Your task to perform on an android device: uninstall "McDonald's" Image 0: 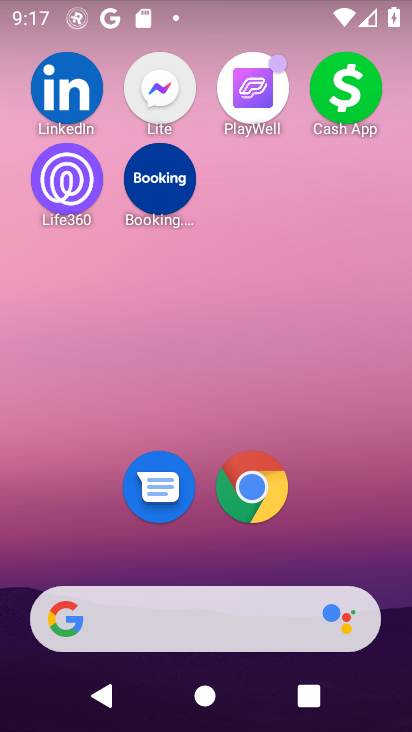
Step 0: drag from (299, 608) to (240, 248)
Your task to perform on an android device: uninstall "McDonald's" Image 1: 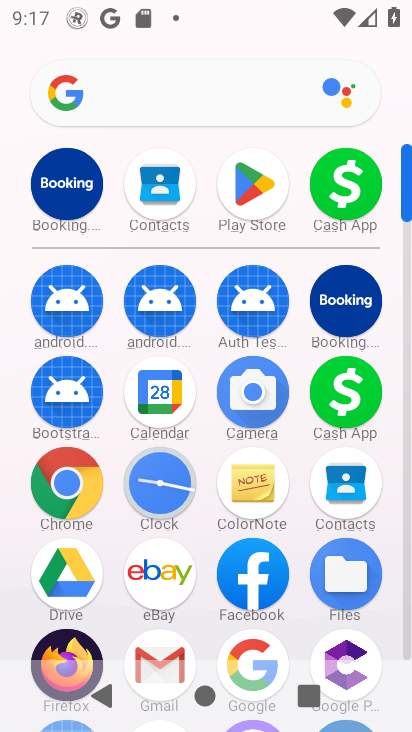
Step 1: drag from (257, 478) to (246, 142)
Your task to perform on an android device: uninstall "McDonald's" Image 2: 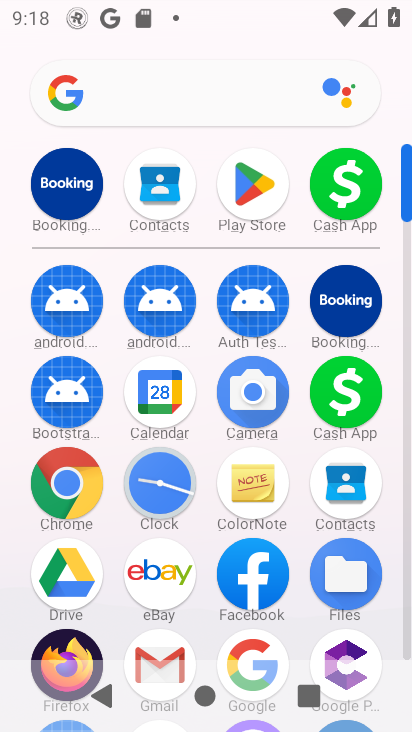
Step 2: click (237, 199)
Your task to perform on an android device: uninstall "McDonald's" Image 3: 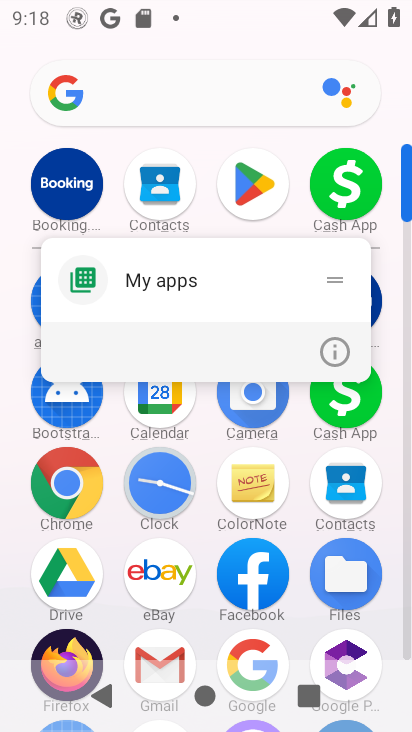
Step 3: click (242, 186)
Your task to perform on an android device: uninstall "McDonald's" Image 4: 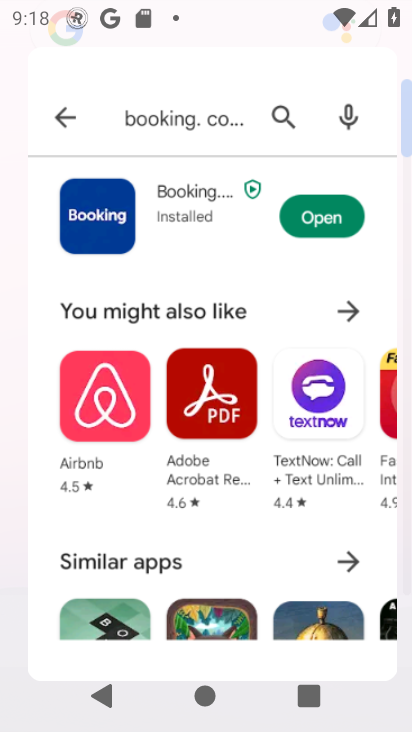
Step 4: click (242, 187)
Your task to perform on an android device: uninstall "McDonald's" Image 5: 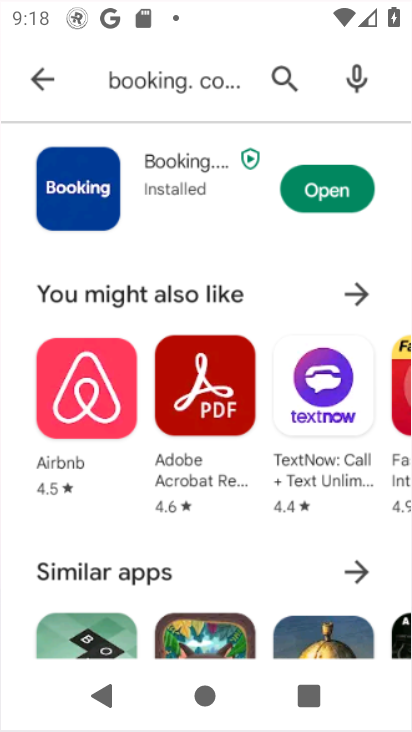
Step 5: click (242, 187)
Your task to perform on an android device: uninstall "McDonald's" Image 6: 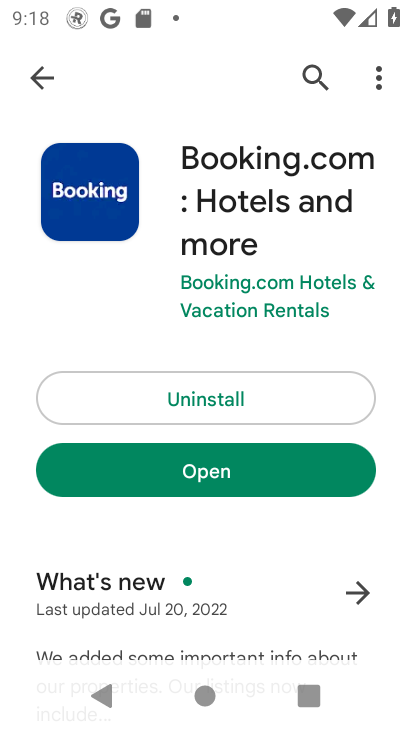
Step 6: click (43, 82)
Your task to perform on an android device: uninstall "McDonald's" Image 7: 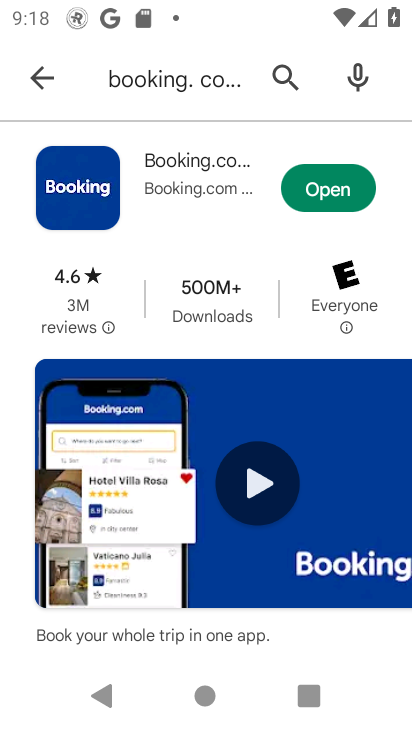
Step 7: click (135, 78)
Your task to perform on an android device: uninstall "McDonald's" Image 8: 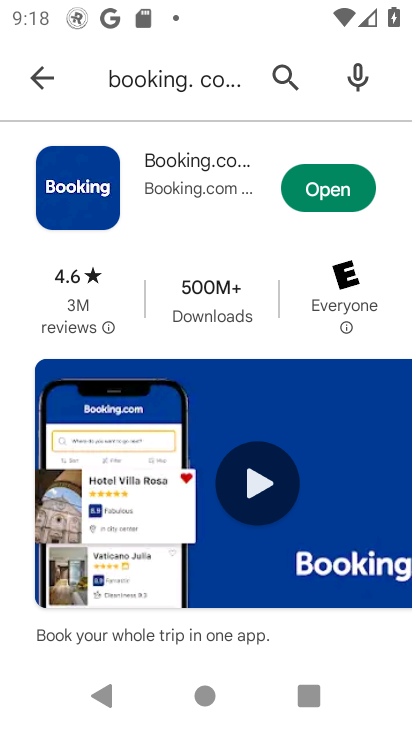
Step 8: click (135, 78)
Your task to perform on an android device: uninstall "McDonald's" Image 9: 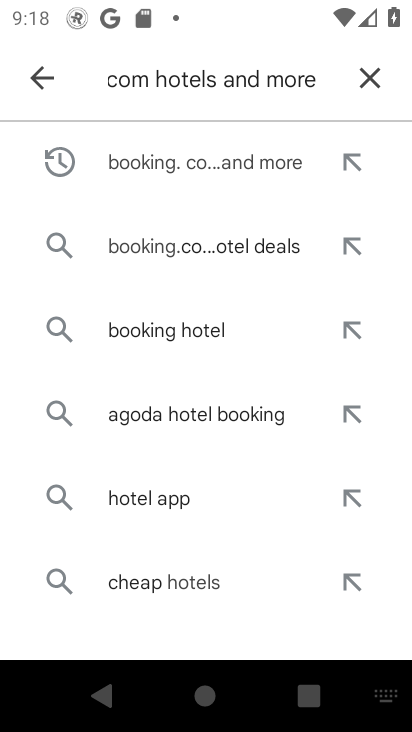
Step 9: click (365, 75)
Your task to perform on an android device: uninstall "McDonald's" Image 10: 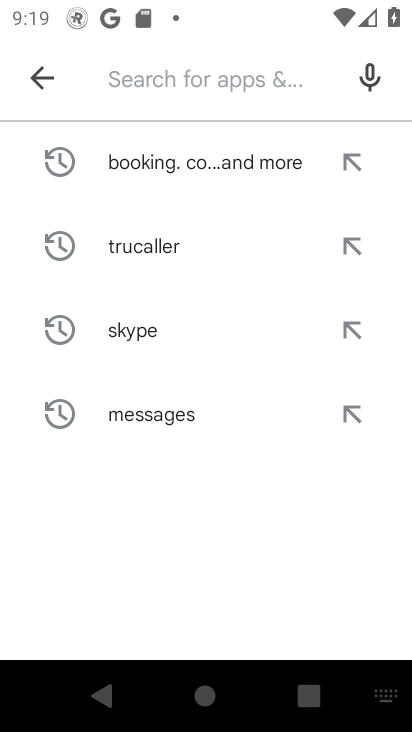
Step 10: type "McDonlad's"
Your task to perform on an android device: uninstall "McDonald's" Image 11: 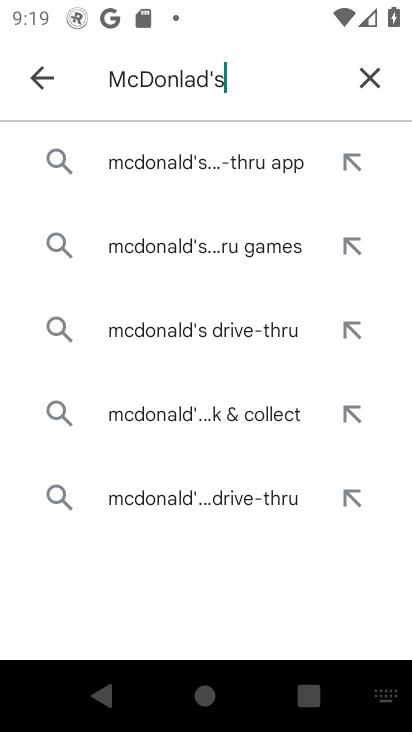
Step 11: click (168, 164)
Your task to perform on an android device: uninstall "McDonald's" Image 12: 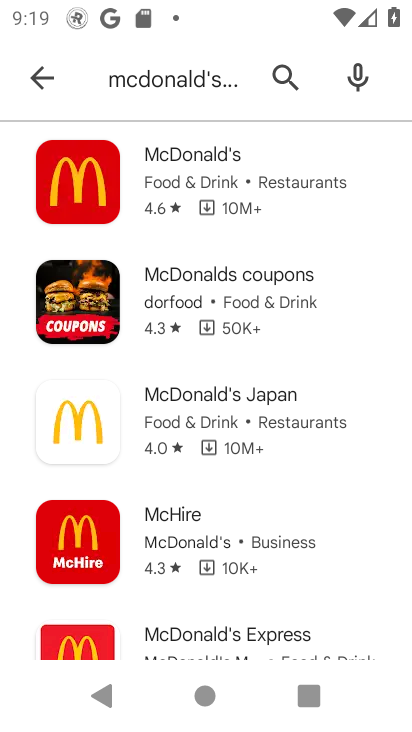
Step 12: click (182, 175)
Your task to perform on an android device: uninstall "McDonald's" Image 13: 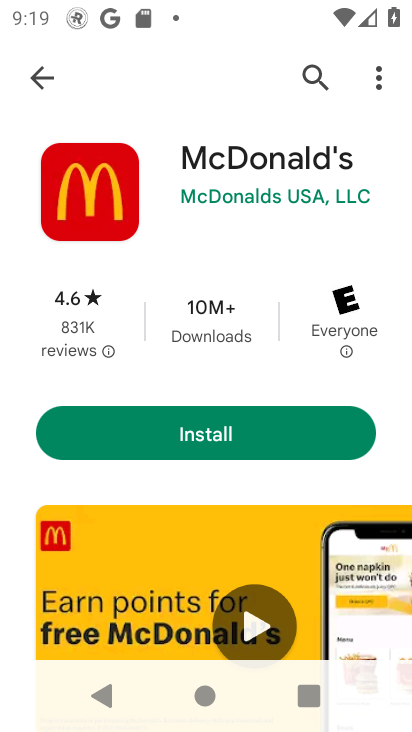
Step 13: task complete